Your task to perform on an android device: Is it going to rain today? Image 0: 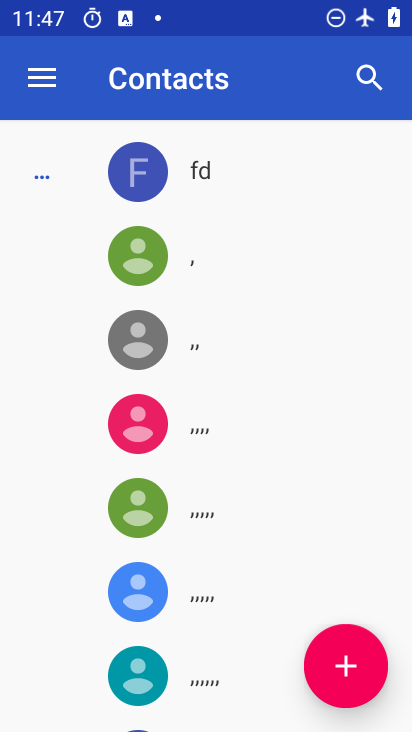
Step 0: press home button
Your task to perform on an android device: Is it going to rain today? Image 1: 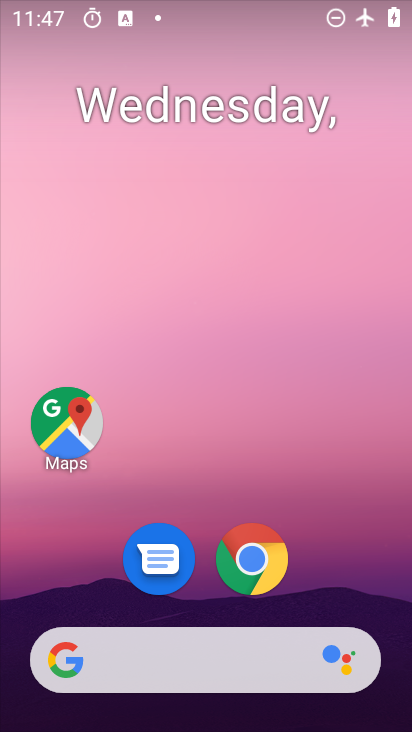
Step 1: drag from (306, 676) to (406, 273)
Your task to perform on an android device: Is it going to rain today? Image 2: 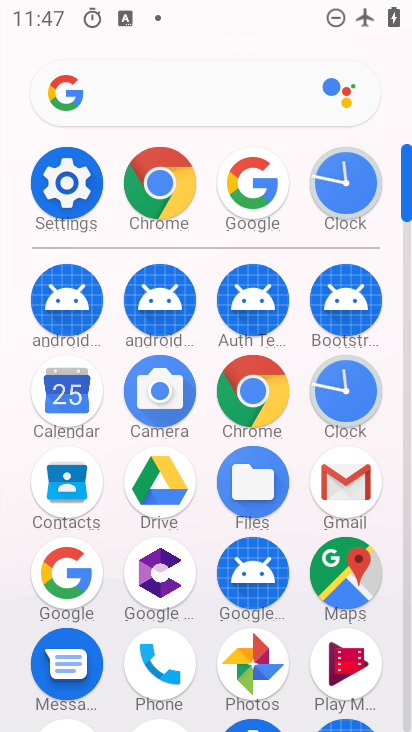
Step 2: click (71, 580)
Your task to perform on an android device: Is it going to rain today? Image 3: 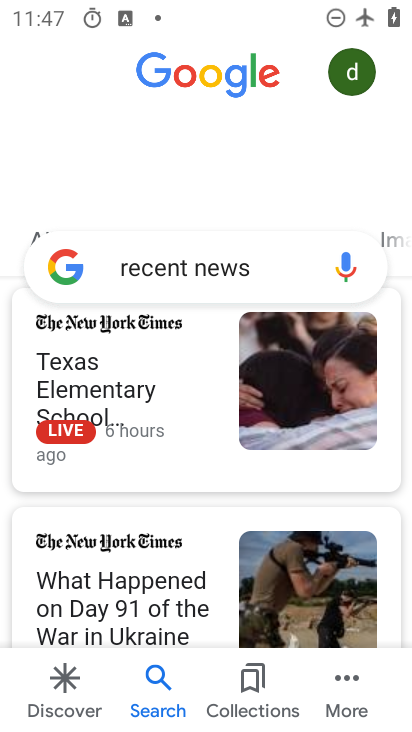
Step 3: click (271, 266)
Your task to perform on an android device: Is it going to rain today? Image 4: 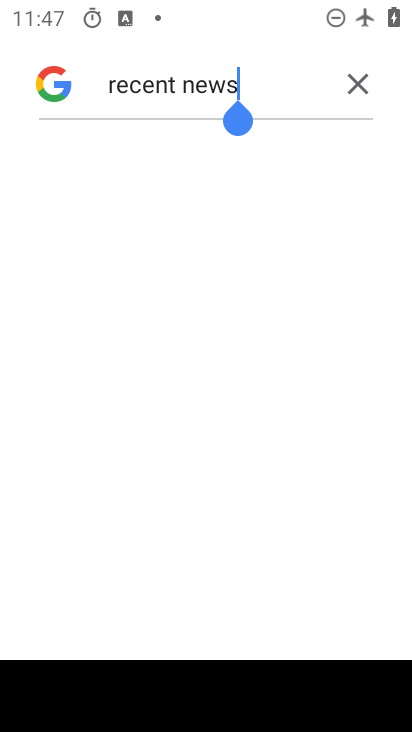
Step 4: click (353, 77)
Your task to perform on an android device: Is it going to rain today? Image 5: 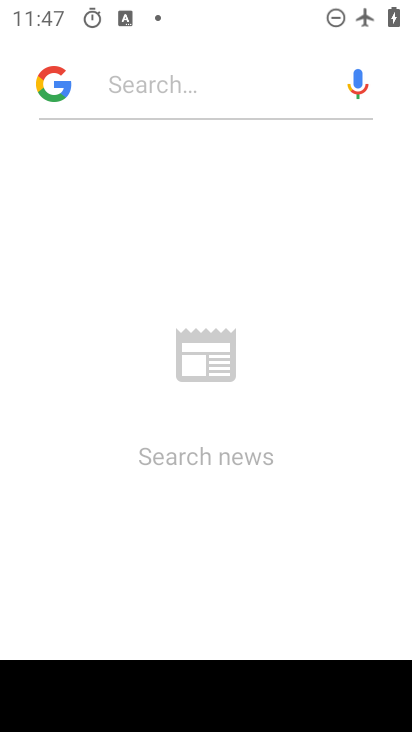
Step 5: task complete